Your task to perform on an android device: star an email in the gmail app Image 0: 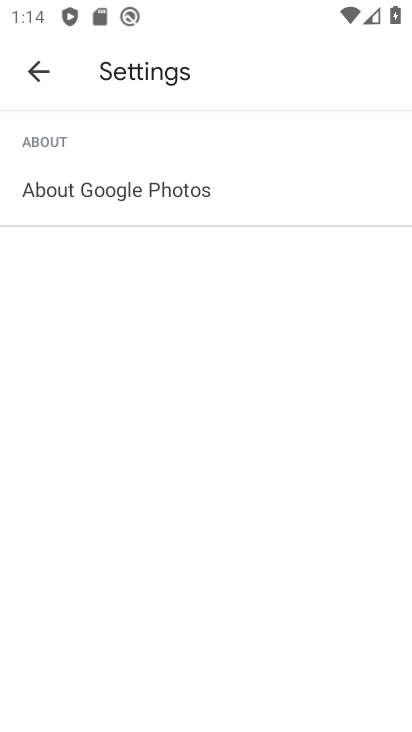
Step 0: press home button
Your task to perform on an android device: star an email in the gmail app Image 1: 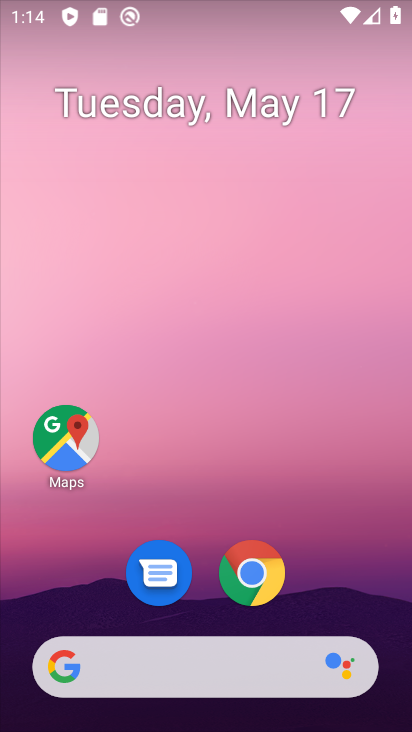
Step 1: drag from (327, 584) to (361, 181)
Your task to perform on an android device: star an email in the gmail app Image 2: 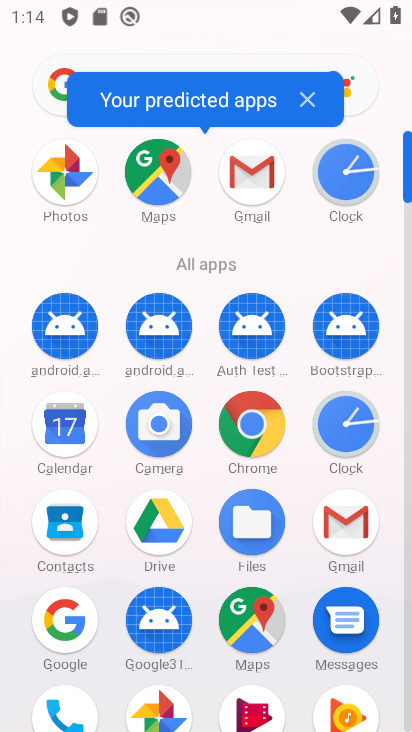
Step 2: click (333, 530)
Your task to perform on an android device: star an email in the gmail app Image 3: 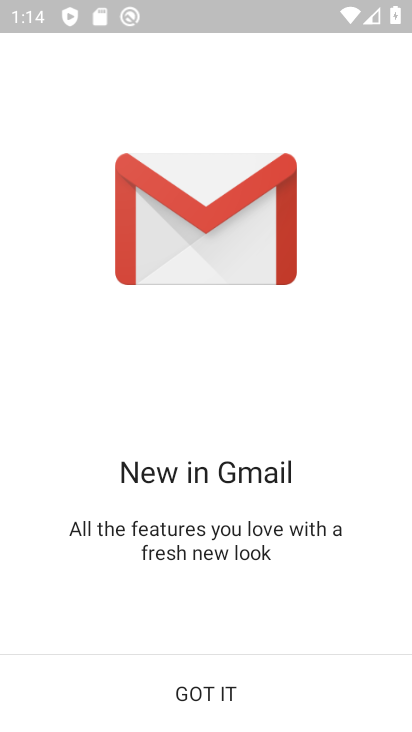
Step 3: click (215, 684)
Your task to perform on an android device: star an email in the gmail app Image 4: 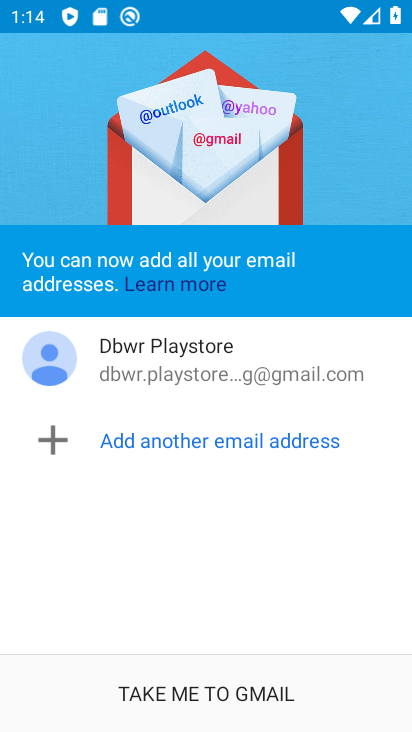
Step 4: click (196, 697)
Your task to perform on an android device: star an email in the gmail app Image 5: 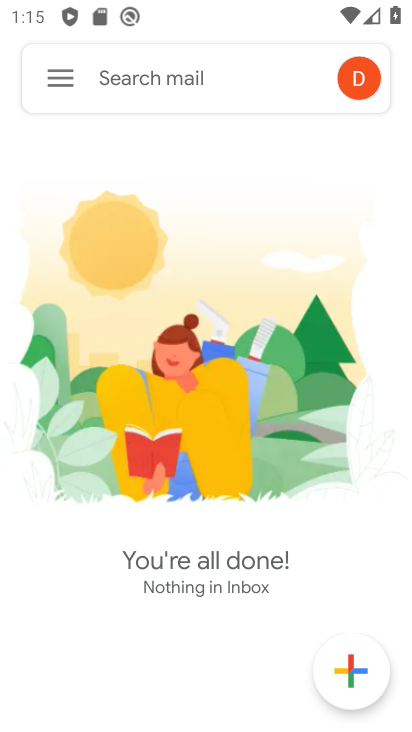
Step 5: task complete